Your task to perform on an android device: Go to wifi settings Image 0: 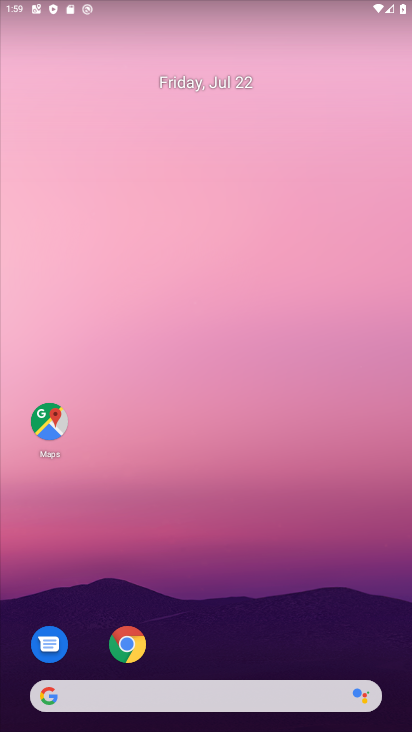
Step 0: drag from (224, 626) to (211, 88)
Your task to perform on an android device: Go to wifi settings Image 1: 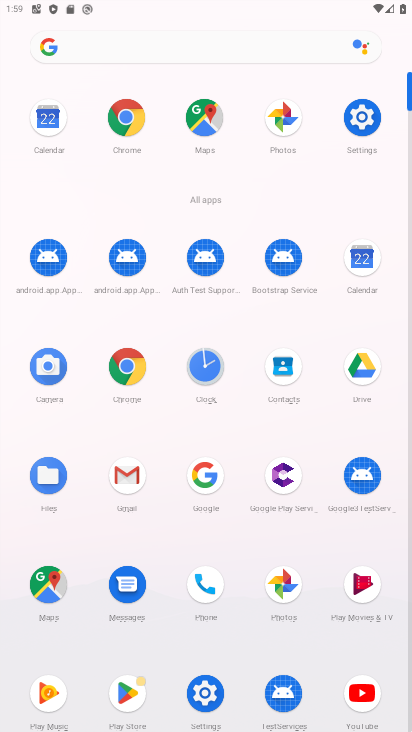
Step 1: click (359, 114)
Your task to perform on an android device: Go to wifi settings Image 2: 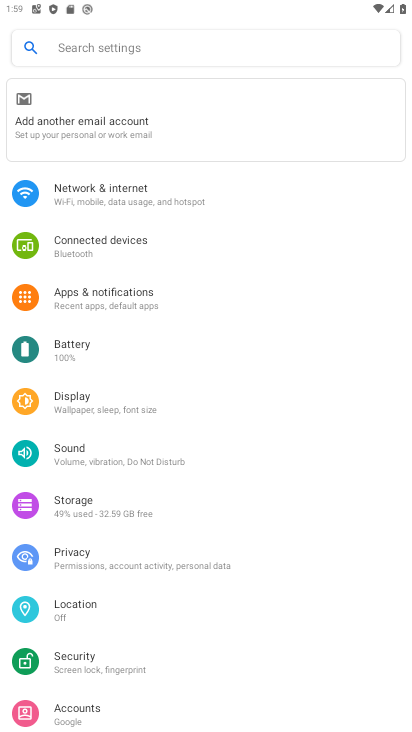
Step 2: click (152, 187)
Your task to perform on an android device: Go to wifi settings Image 3: 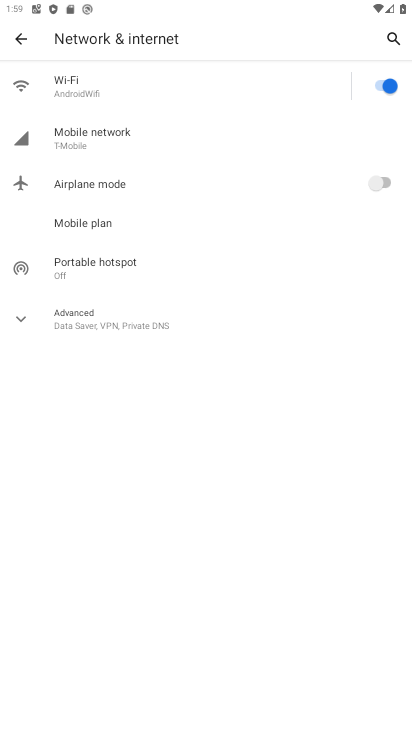
Step 3: click (85, 77)
Your task to perform on an android device: Go to wifi settings Image 4: 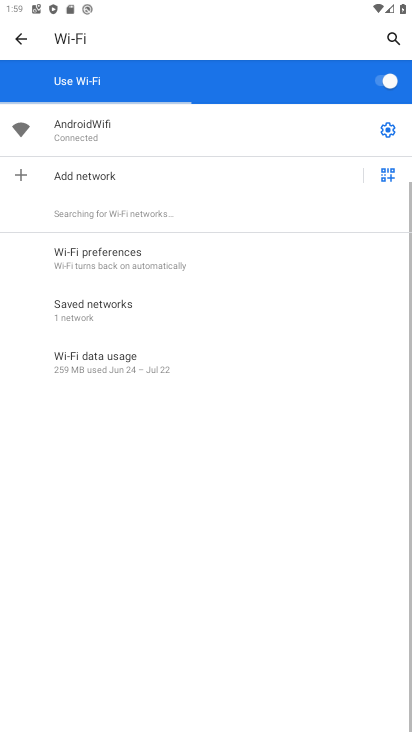
Step 4: task complete